Your task to perform on an android device: find snoozed emails in the gmail app Image 0: 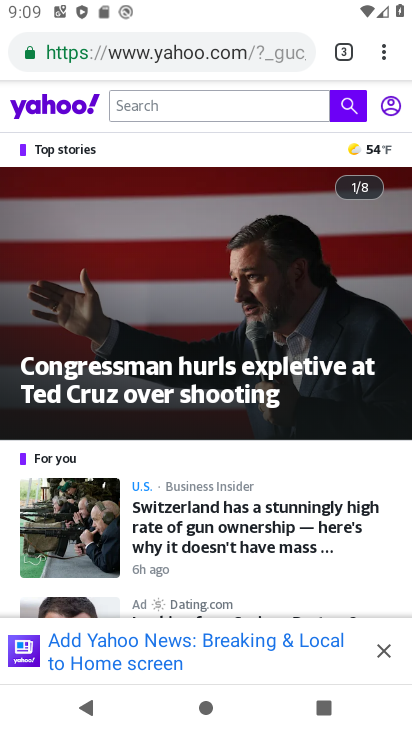
Step 0: click (376, 56)
Your task to perform on an android device: find snoozed emails in the gmail app Image 1: 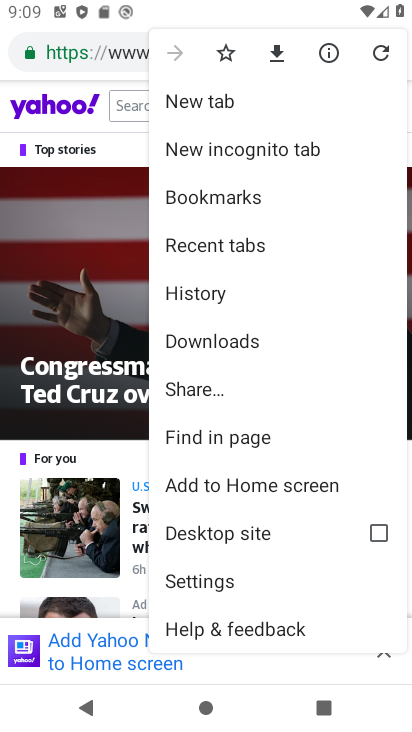
Step 1: task complete